Your task to perform on an android device: open a new tab in the chrome app Image 0: 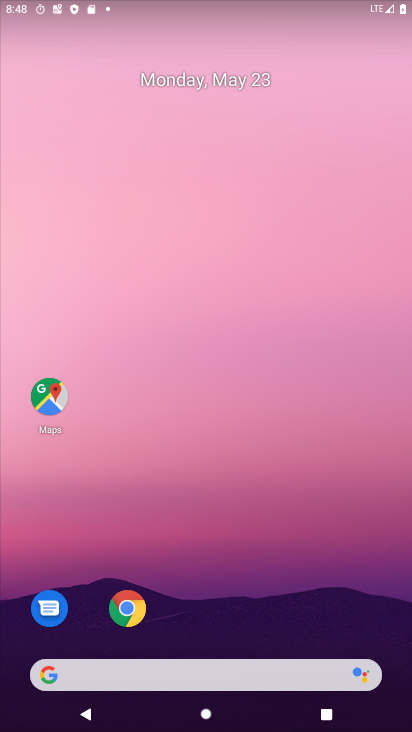
Step 0: click (129, 627)
Your task to perform on an android device: open a new tab in the chrome app Image 1: 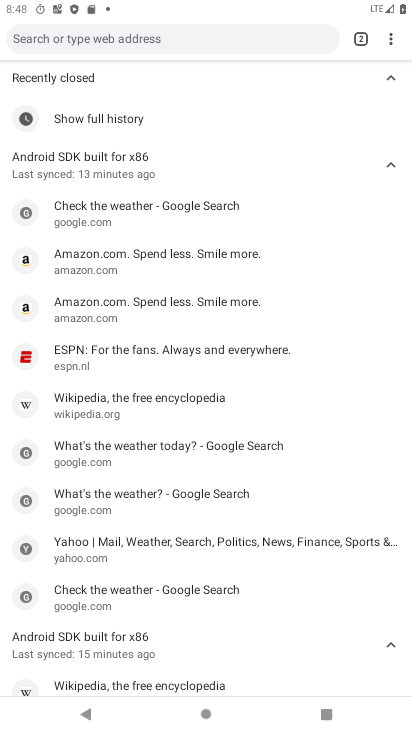
Step 1: task complete